Your task to perform on an android device: Find coffee shops on Maps Image 0: 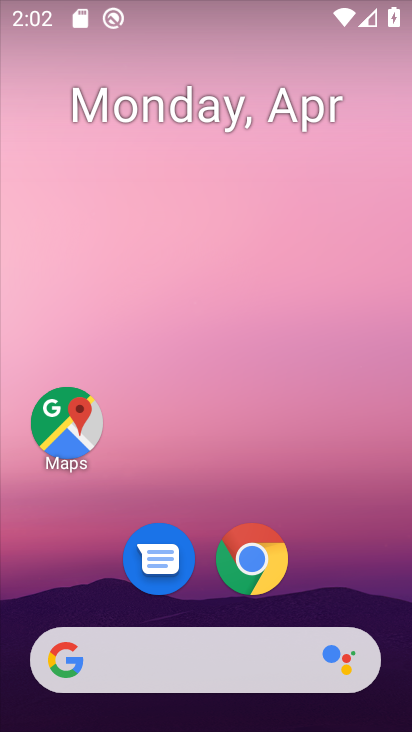
Step 0: click (64, 410)
Your task to perform on an android device: Find coffee shops on Maps Image 1: 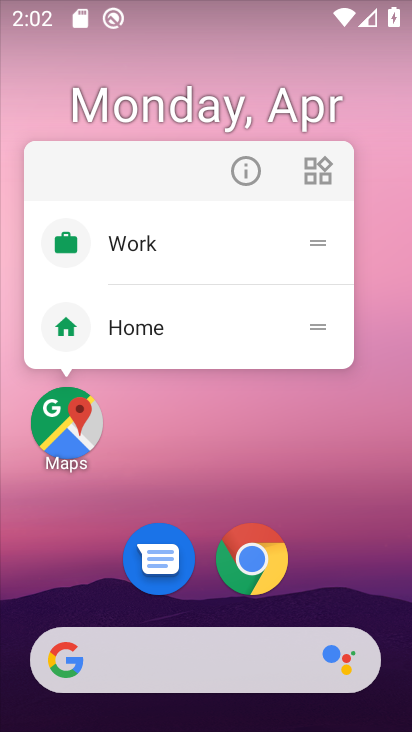
Step 1: click (64, 410)
Your task to perform on an android device: Find coffee shops on Maps Image 2: 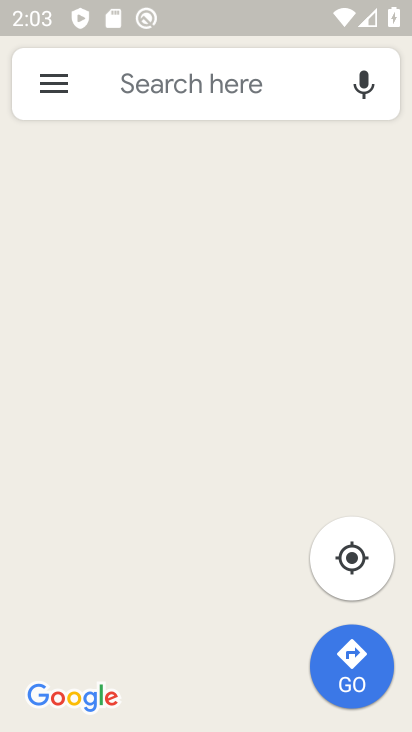
Step 2: click (180, 68)
Your task to perform on an android device: Find coffee shops on Maps Image 3: 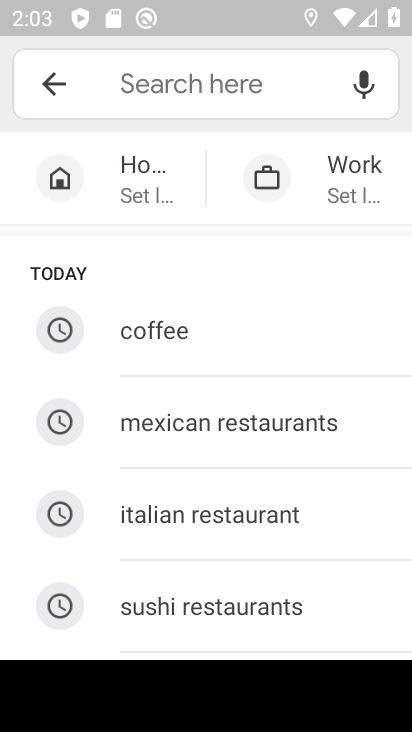
Step 3: type "coffee shops"
Your task to perform on an android device: Find coffee shops on Maps Image 4: 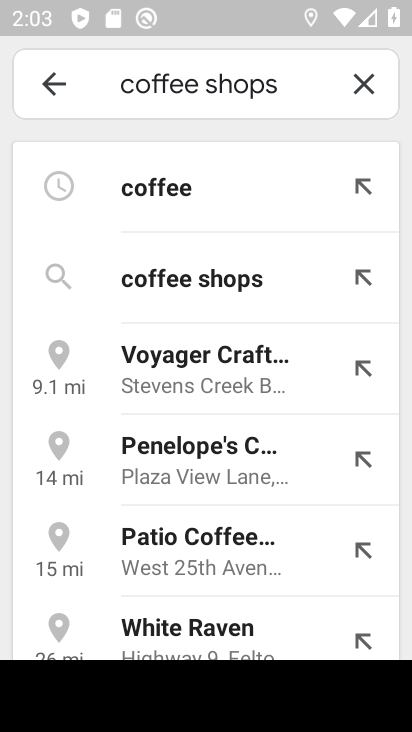
Step 4: click (244, 290)
Your task to perform on an android device: Find coffee shops on Maps Image 5: 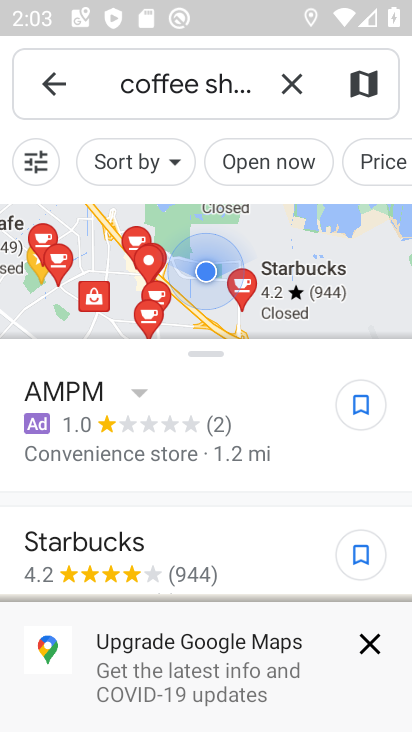
Step 5: task complete